Your task to perform on an android device: Open ESPN.com Image 0: 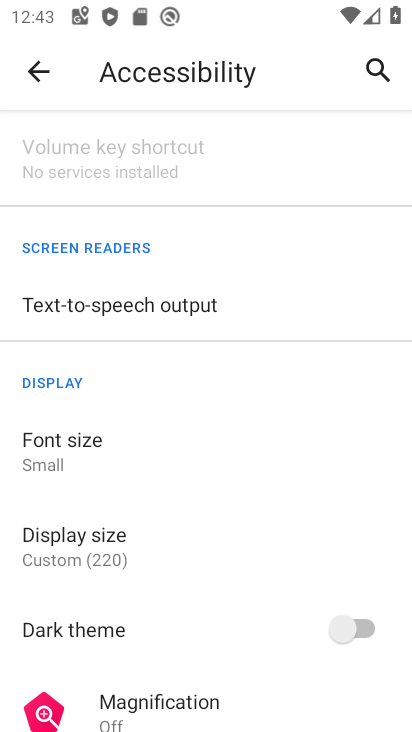
Step 0: press home button
Your task to perform on an android device: Open ESPN.com Image 1: 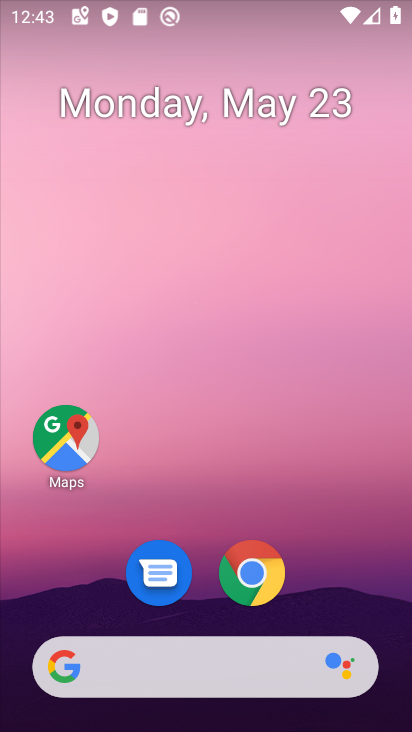
Step 1: drag from (303, 652) to (264, 67)
Your task to perform on an android device: Open ESPN.com Image 2: 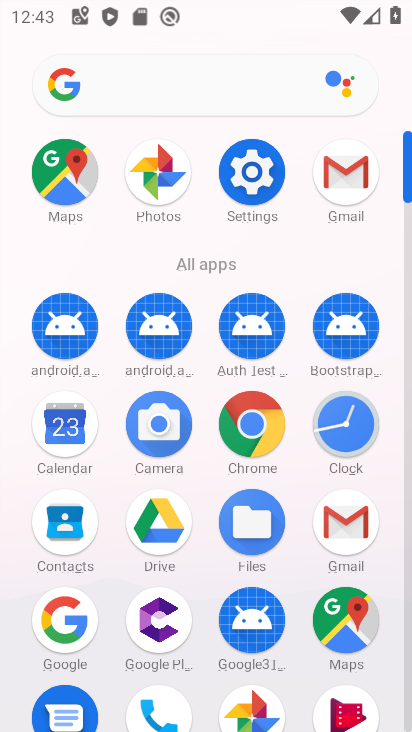
Step 2: click (257, 426)
Your task to perform on an android device: Open ESPN.com Image 3: 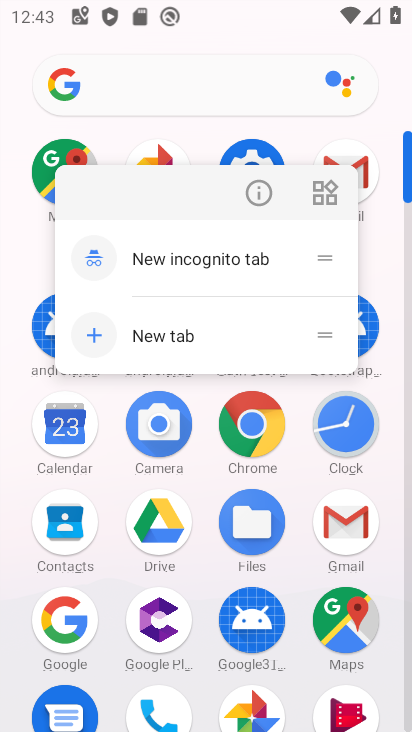
Step 3: click (254, 416)
Your task to perform on an android device: Open ESPN.com Image 4: 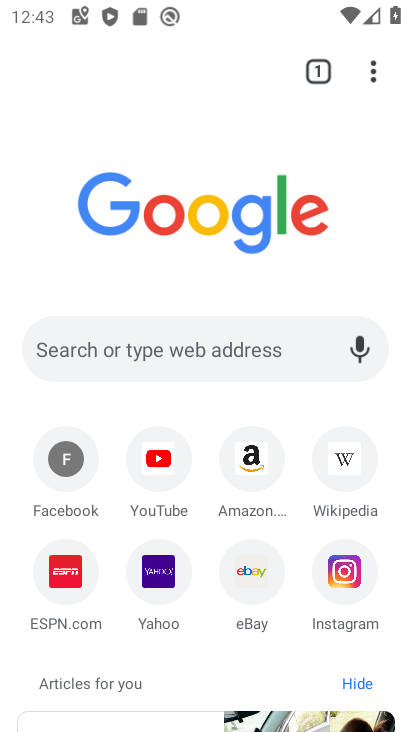
Step 4: click (30, 577)
Your task to perform on an android device: Open ESPN.com Image 5: 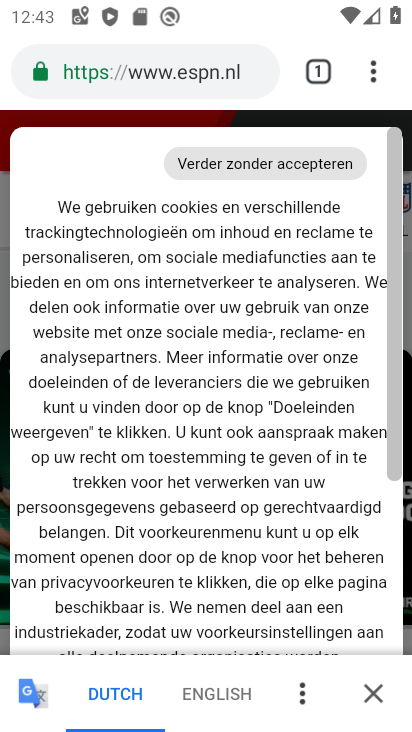
Step 5: task complete